Your task to perform on an android device: see tabs open on other devices in the chrome app Image 0: 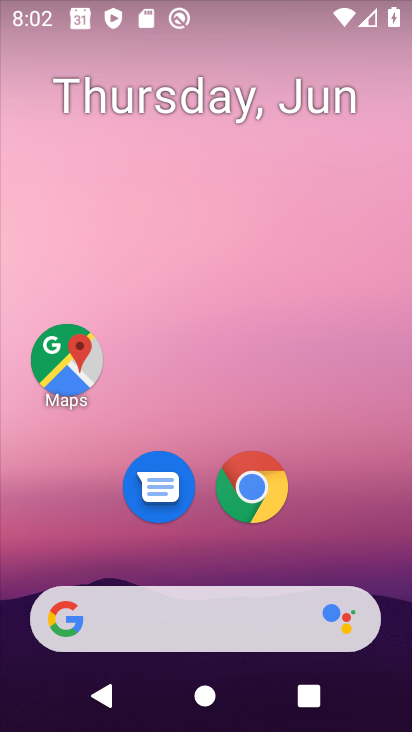
Step 0: drag from (393, 63) to (51, 350)
Your task to perform on an android device: see tabs open on other devices in the chrome app Image 1: 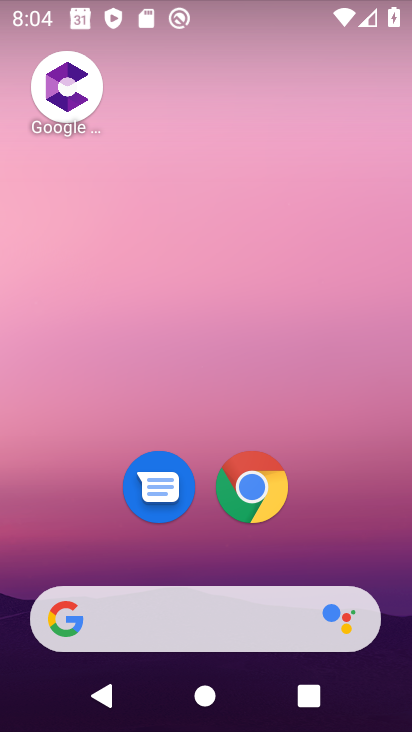
Step 1: drag from (211, 460) to (73, 697)
Your task to perform on an android device: see tabs open on other devices in the chrome app Image 2: 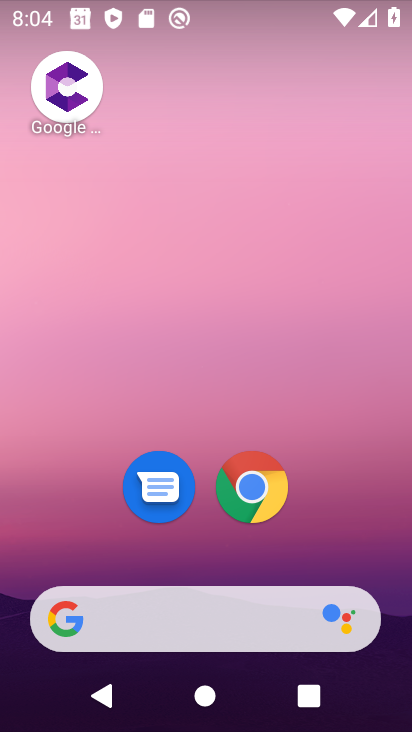
Step 2: click (249, 489)
Your task to perform on an android device: see tabs open on other devices in the chrome app Image 3: 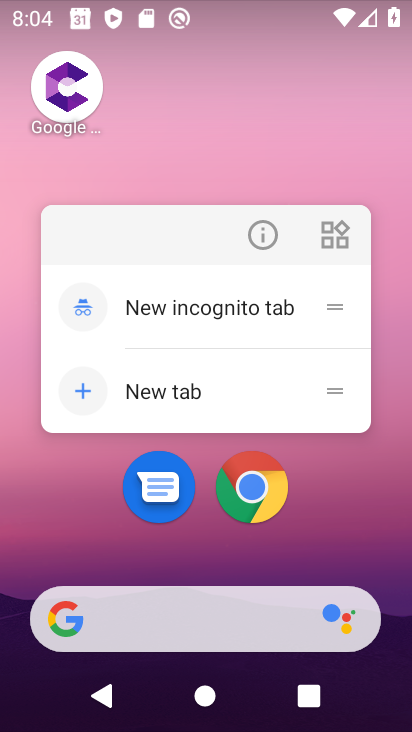
Step 3: click (258, 252)
Your task to perform on an android device: see tabs open on other devices in the chrome app Image 4: 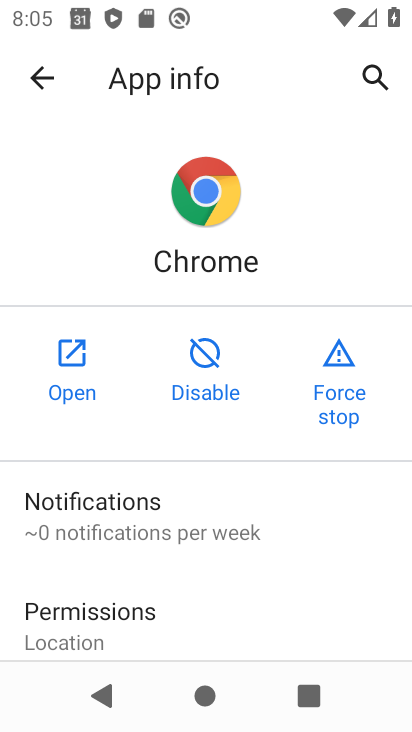
Step 4: click (81, 376)
Your task to perform on an android device: see tabs open on other devices in the chrome app Image 5: 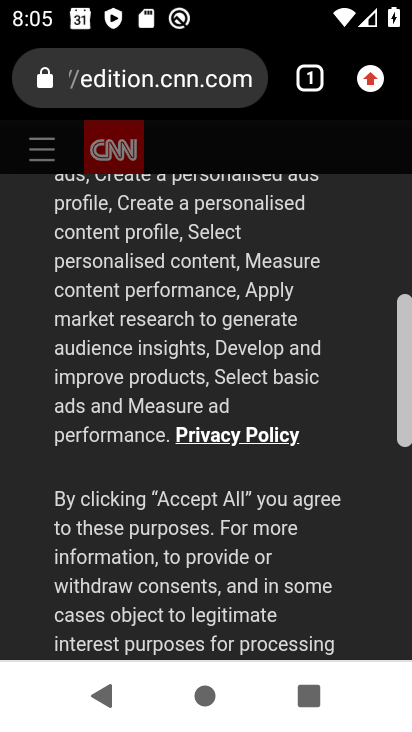
Step 5: task complete